Your task to perform on an android device: Open calendar and show me the first week of next month Image 0: 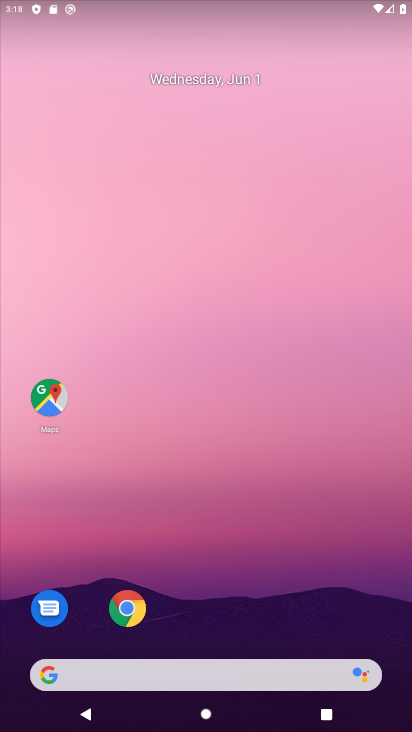
Step 0: drag from (172, 653) to (187, 5)
Your task to perform on an android device: Open calendar and show me the first week of next month Image 1: 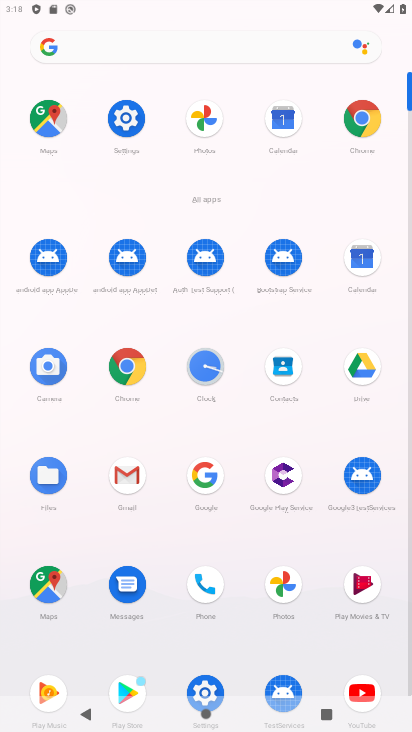
Step 1: click (366, 257)
Your task to perform on an android device: Open calendar and show me the first week of next month Image 2: 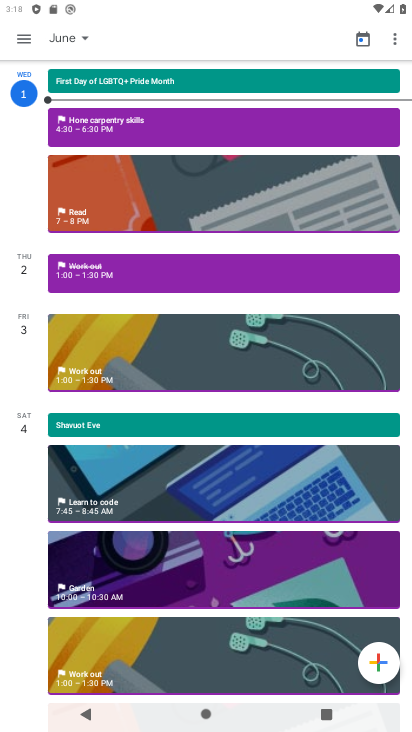
Step 2: click (24, 45)
Your task to perform on an android device: Open calendar and show me the first week of next month Image 3: 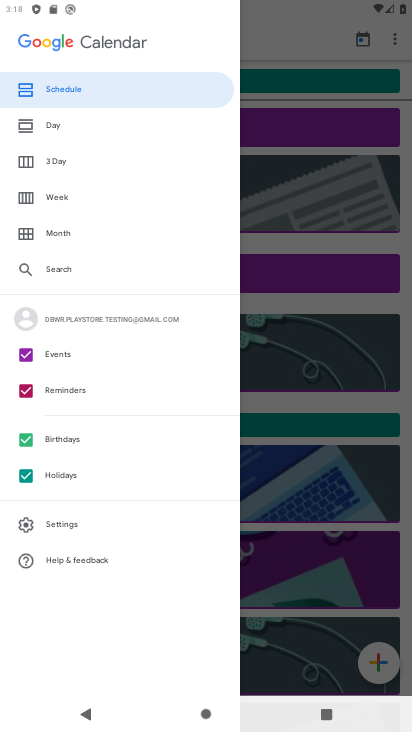
Step 3: click (39, 227)
Your task to perform on an android device: Open calendar and show me the first week of next month Image 4: 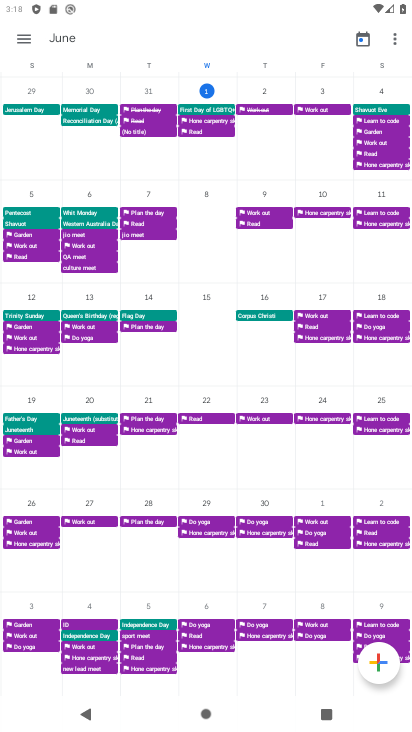
Step 4: task complete